Your task to perform on an android device: turn on bluetooth scan Image 0: 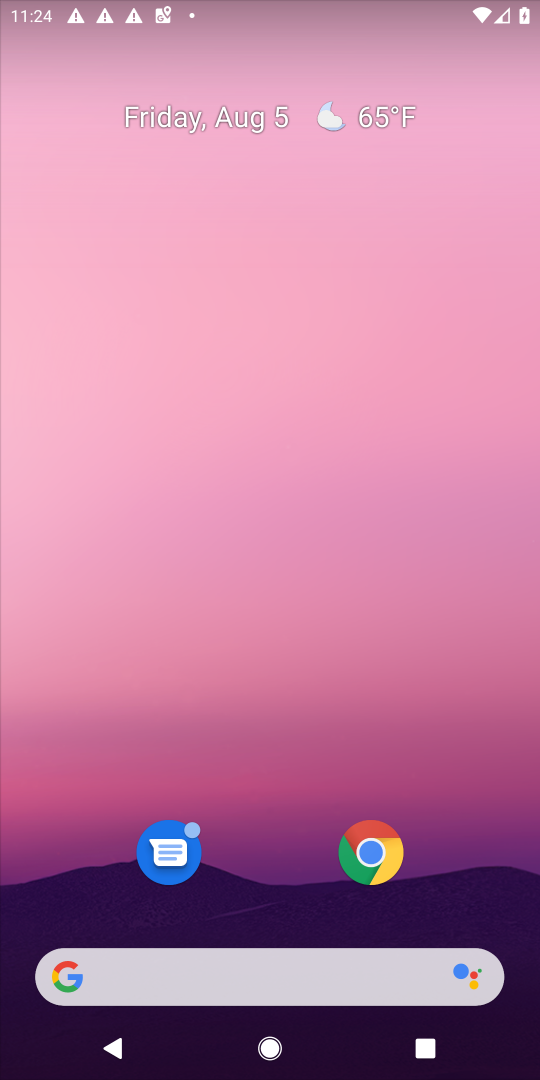
Step 0: drag from (407, 989) to (358, 161)
Your task to perform on an android device: turn on bluetooth scan Image 1: 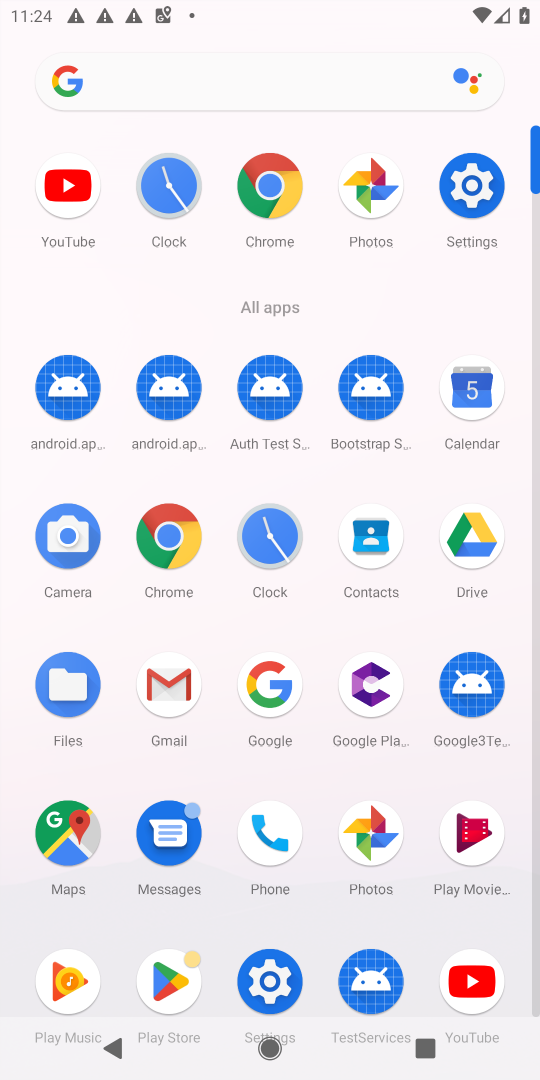
Step 1: click (486, 191)
Your task to perform on an android device: turn on bluetooth scan Image 2: 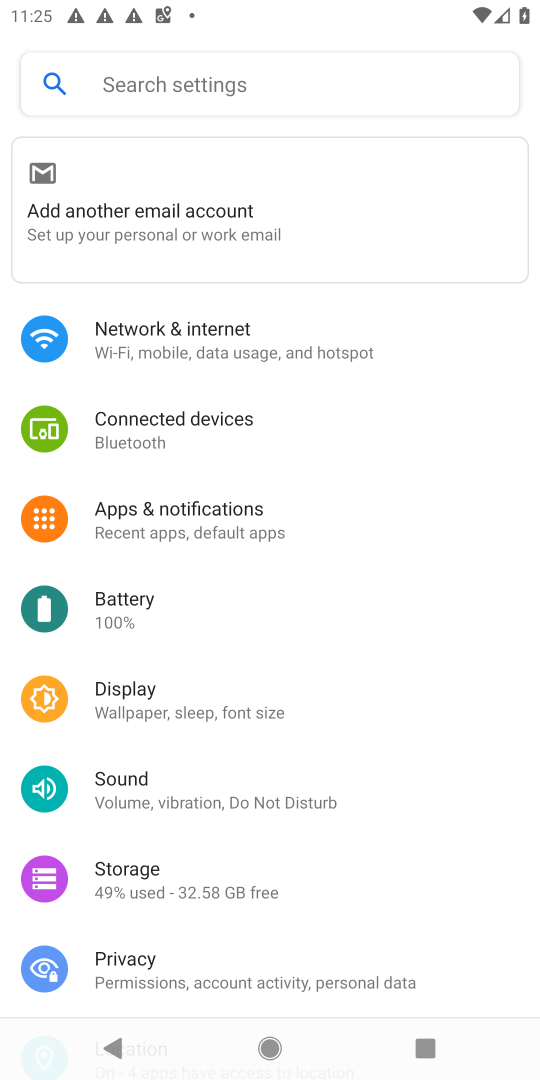
Step 2: click (239, 86)
Your task to perform on an android device: turn on bluetooth scan Image 3: 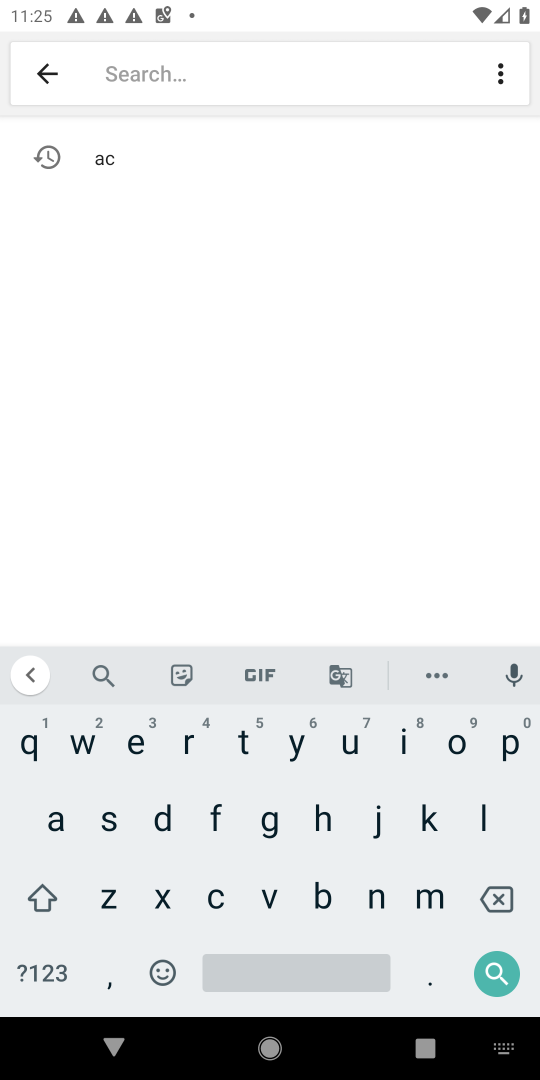
Step 3: click (480, 827)
Your task to perform on an android device: turn on bluetooth scan Image 4: 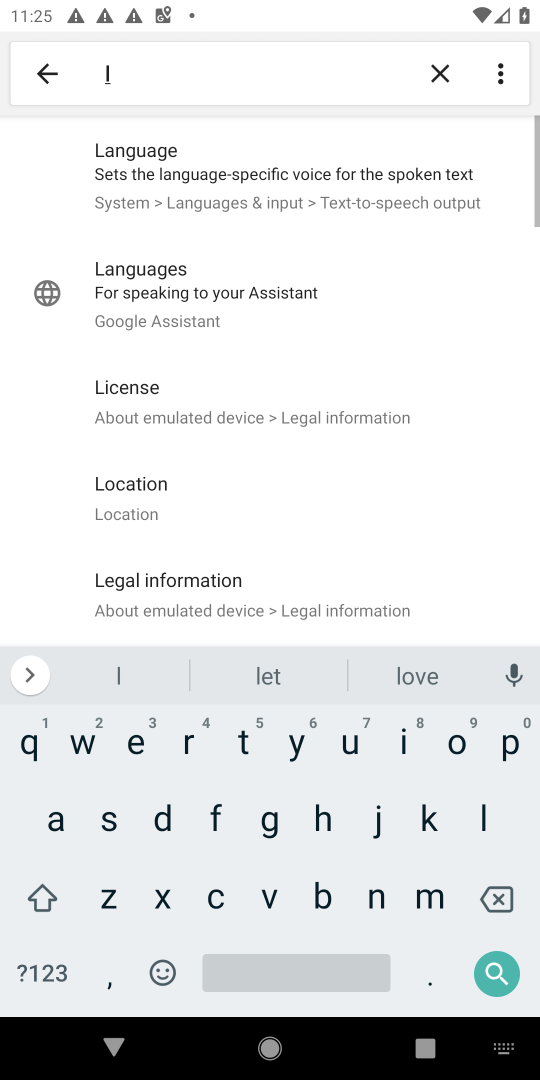
Step 4: click (451, 749)
Your task to perform on an android device: turn on bluetooth scan Image 5: 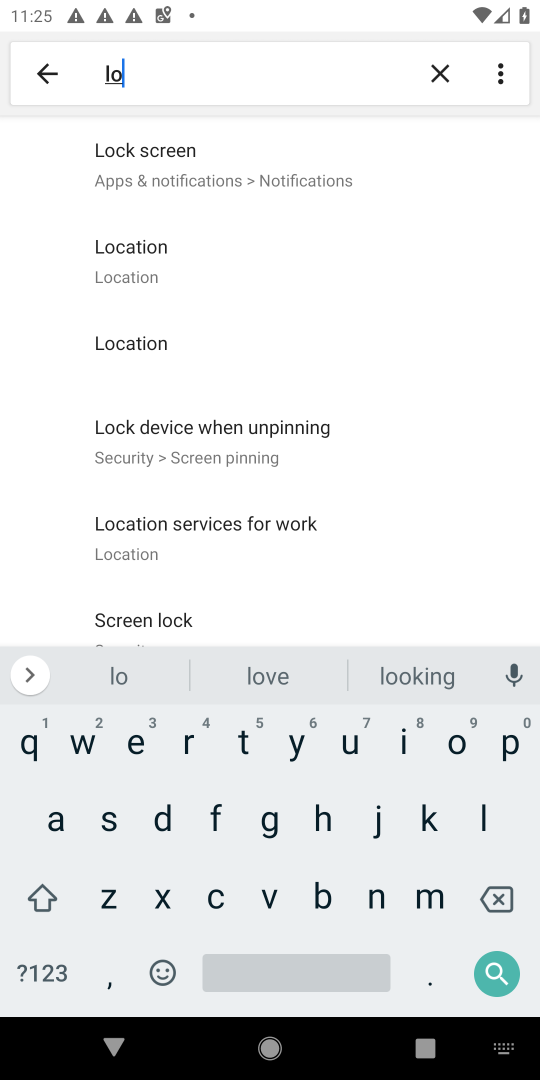
Step 5: click (149, 264)
Your task to perform on an android device: turn on bluetooth scan Image 6: 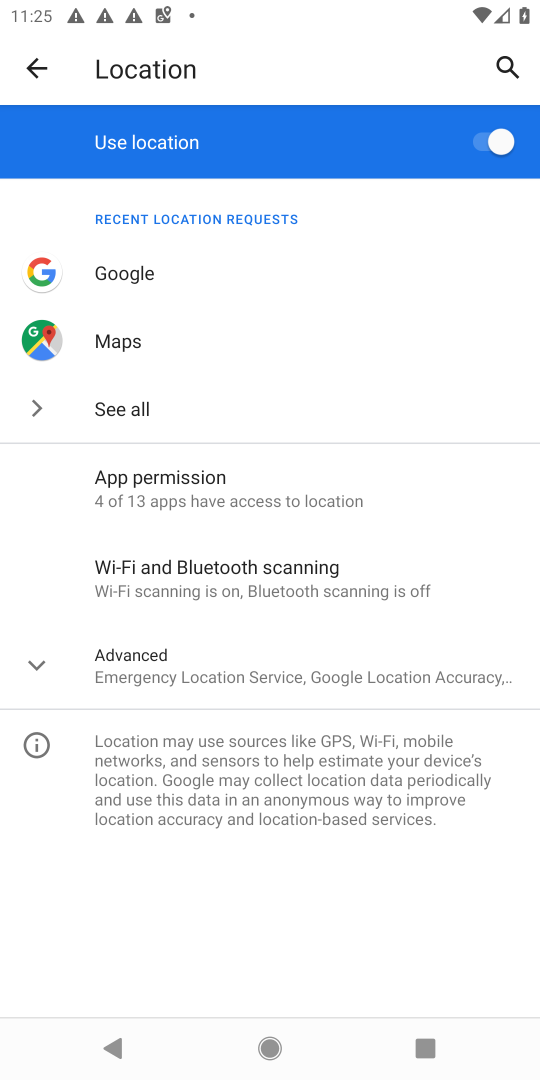
Step 6: click (209, 581)
Your task to perform on an android device: turn on bluetooth scan Image 7: 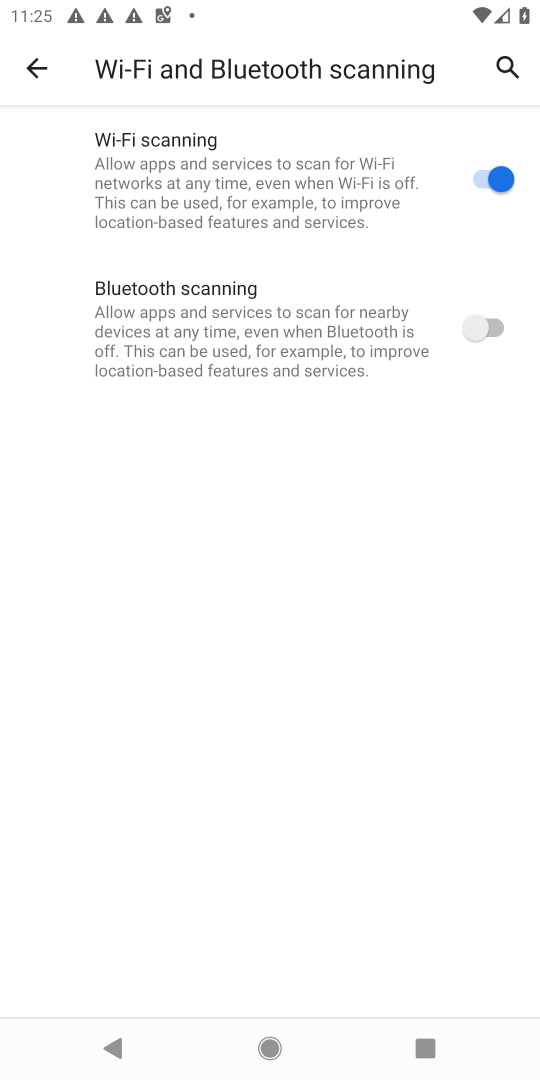
Step 7: click (483, 329)
Your task to perform on an android device: turn on bluetooth scan Image 8: 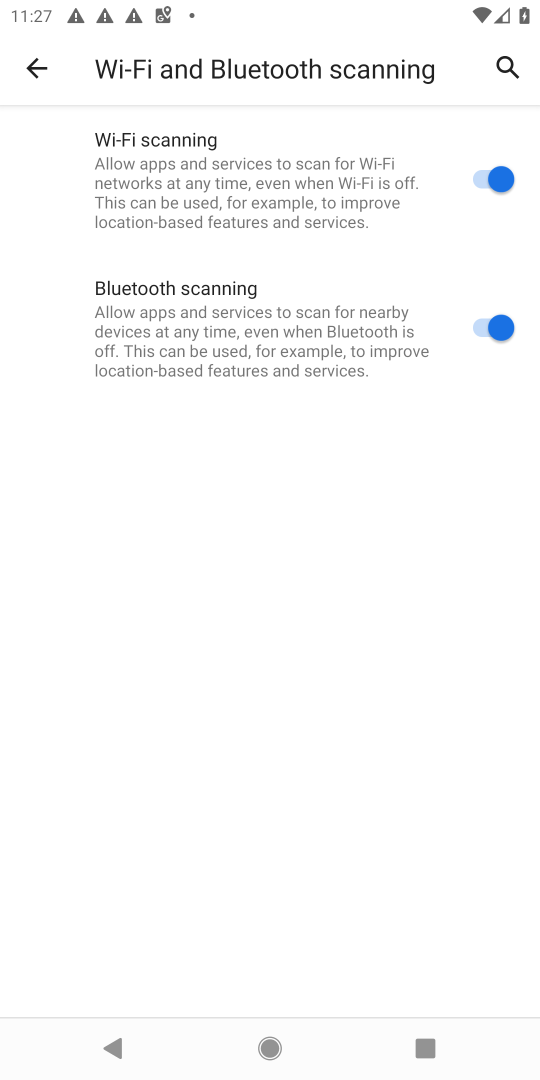
Step 8: task complete